Your task to perform on an android device: Open Yahoo.com Image 0: 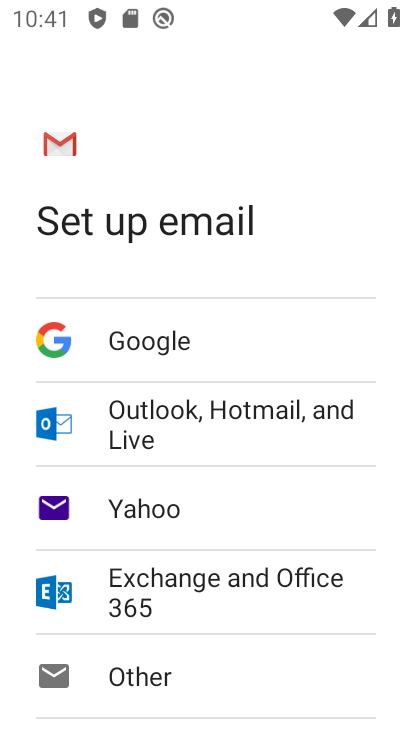
Step 0: press home button
Your task to perform on an android device: Open Yahoo.com Image 1: 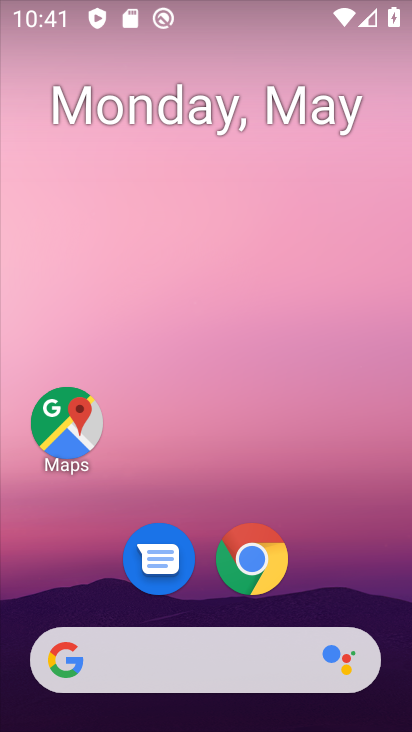
Step 1: click (259, 561)
Your task to perform on an android device: Open Yahoo.com Image 2: 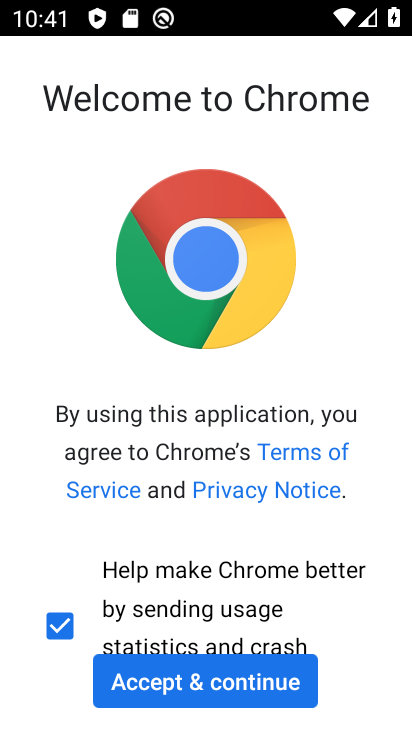
Step 2: click (241, 679)
Your task to perform on an android device: Open Yahoo.com Image 3: 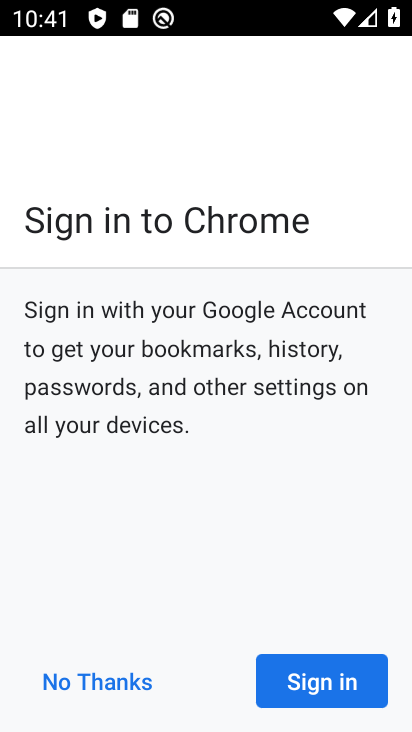
Step 3: click (368, 687)
Your task to perform on an android device: Open Yahoo.com Image 4: 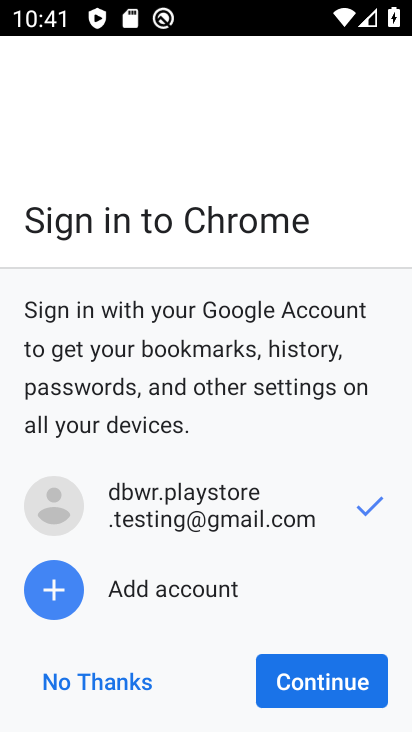
Step 4: click (368, 687)
Your task to perform on an android device: Open Yahoo.com Image 5: 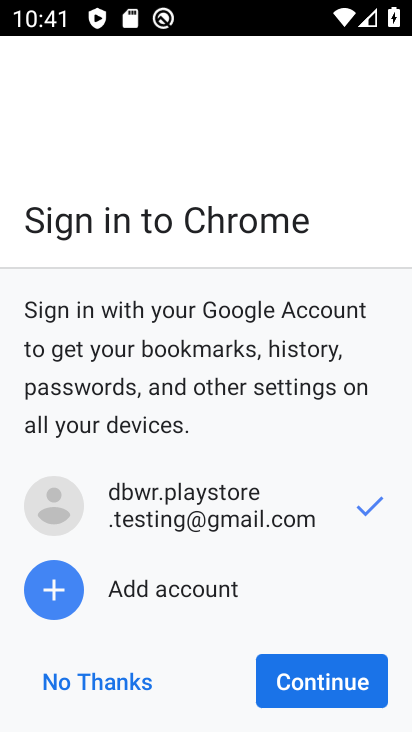
Step 5: click (368, 687)
Your task to perform on an android device: Open Yahoo.com Image 6: 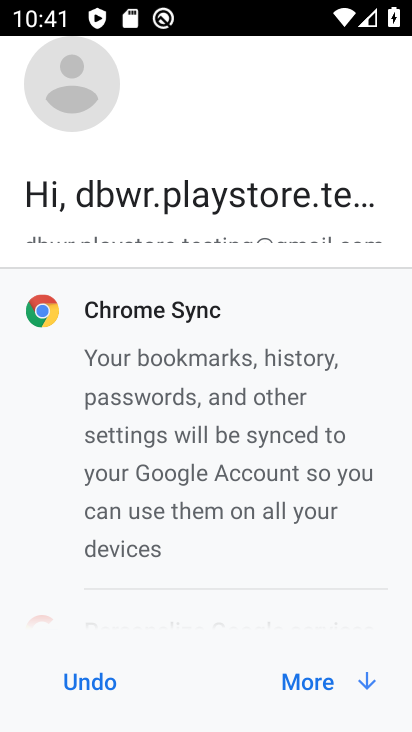
Step 6: click (368, 687)
Your task to perform on an android device: Open Yahoo.com Image 7: 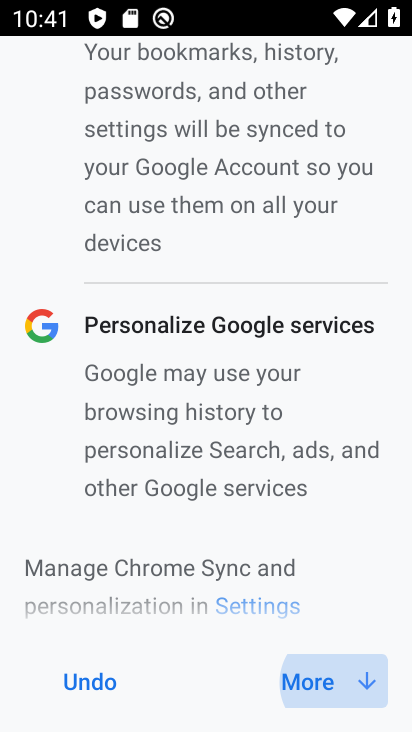
Step 7: click (368, 687)
Your task to perform on an android device: Open Yahoo.com Image 8: 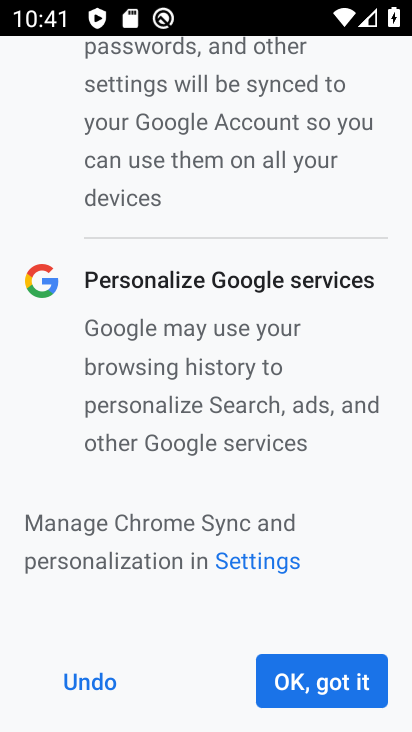
Step 8: click (368, 687)
Your task to perform on an android device: Open Yahoo.com Image 9: 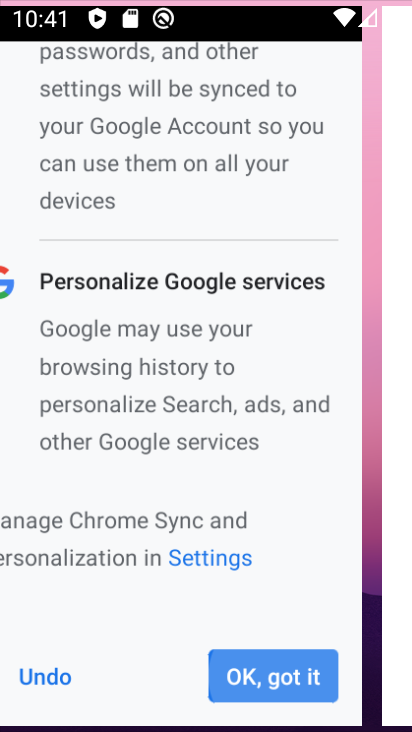
Step 9: click (368, 687)
Your task to perform on an android device: Open Yahoo.com Image 10: 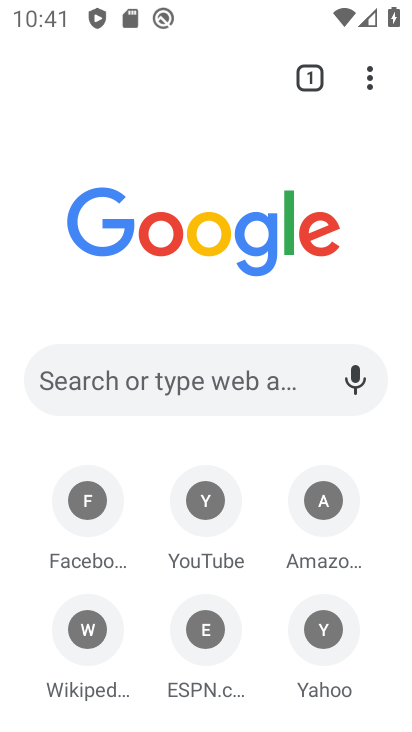
Step 10: click (368, 687)
Your task to perform on an android device: Open Yahoo.com Image 11: 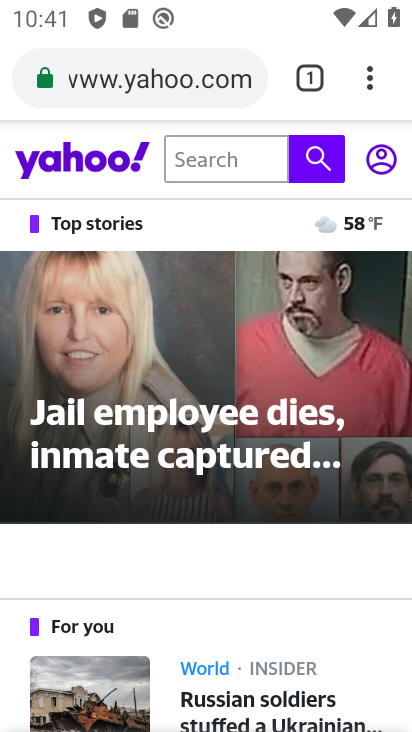
Step 11: task complete